Your task to perform on an android device: Show me popular videos on Youtube Image 0: 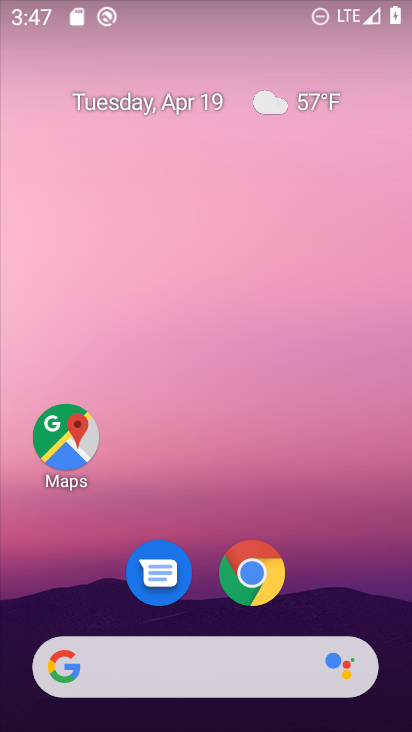
Step 0: drag from (370, 553) to (371, 14)
Your task to perform on an android device: Show me popular videos on Youtube Image 1: 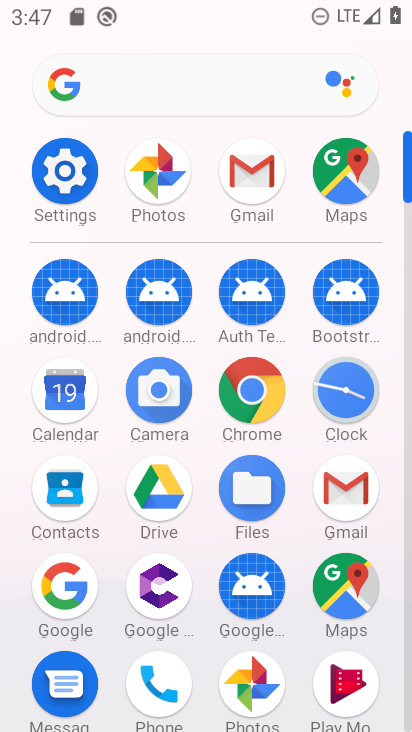
Step 1: drag from (406, 571) to (411, 531)
Your task to perform on an android device: Show me popular videos on Youtube Image 2: 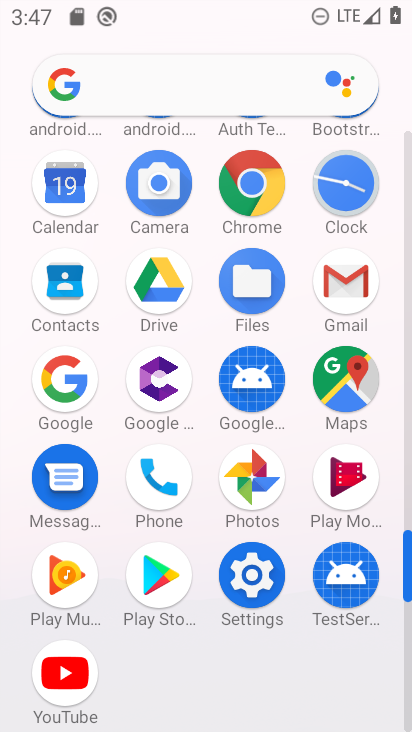
Step 2: click (53, 678)
Your task to perform on an android device: Show me popular videos on Youtube Image 3: 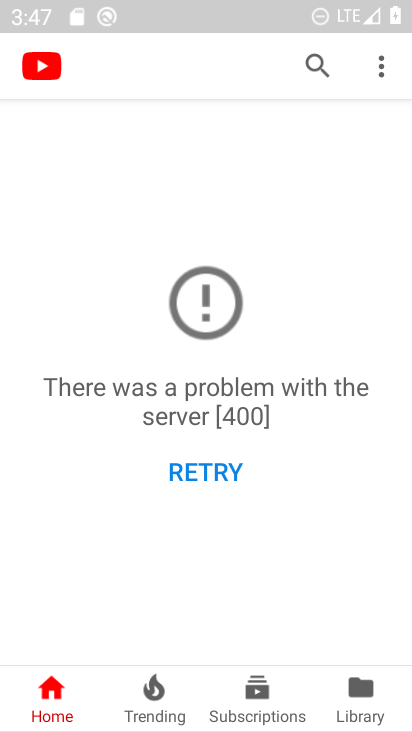
Step 3: drag from (295, 455) to (287, 309)
Your task to perform on an android device: Show me popular videos on Youtube Image 4: 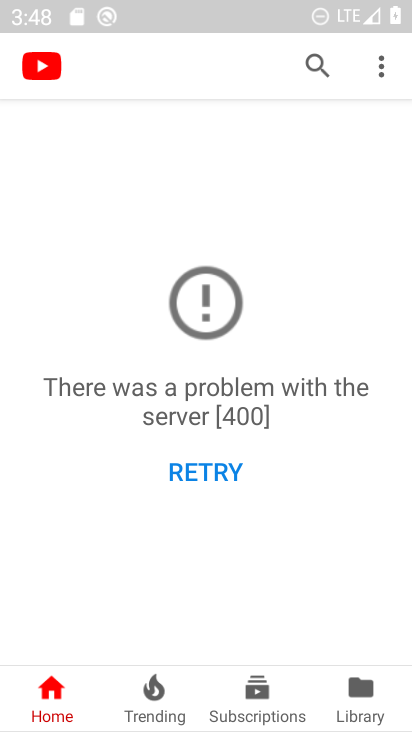
Step 4: click (157, 712)
Your task to perform on an android device: Show me popular videos on Youtube Image 5: 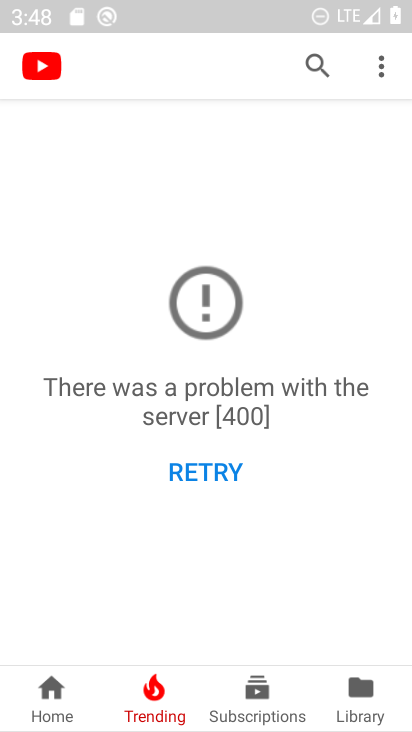
Step 5: task complete